Your task to perform on an android device: Search for razer blade on walmart, select the first entry, add it to the cart, then select checkout. Image 0: 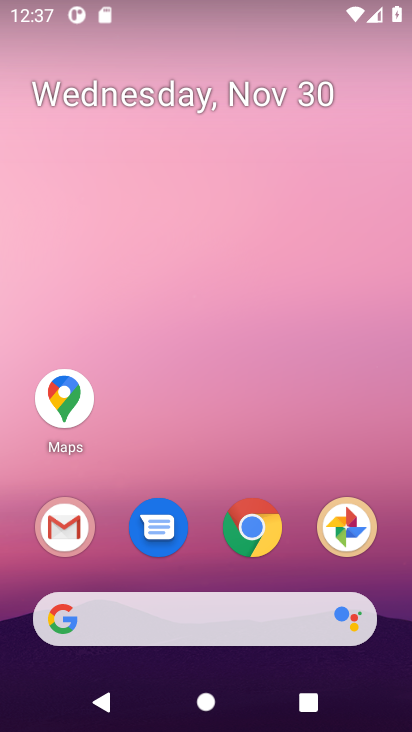
Step 0: click (232, 635)
Your task to perform on an android device: Search for razer blade on walmart, select the first entry, add it to the cart, then select checkout. Image 1: 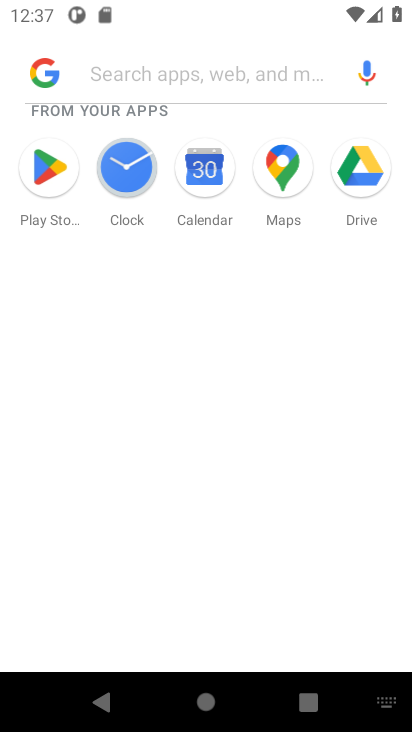
Step 1: press home button
Your task to perform on an android device: Search for razer blade on walmart, select the first entry, add it to the cart, then select checkout. Image 2: 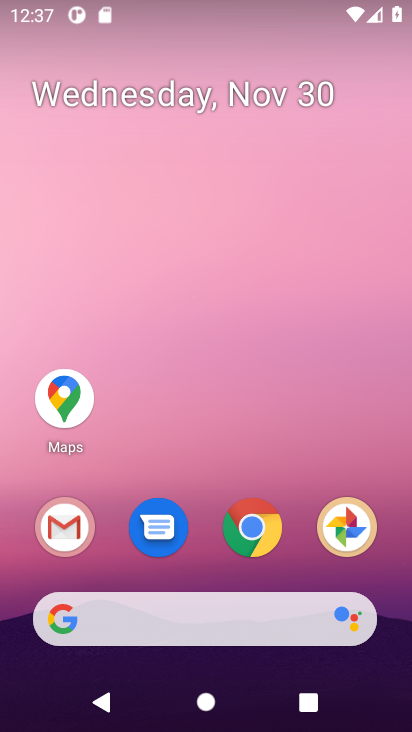
Step 2: click (253, 546)
Your task to perform on an android device: Search for razer blade on walmart, select the first entry, add it to the cart, then select checkout. Image 3: 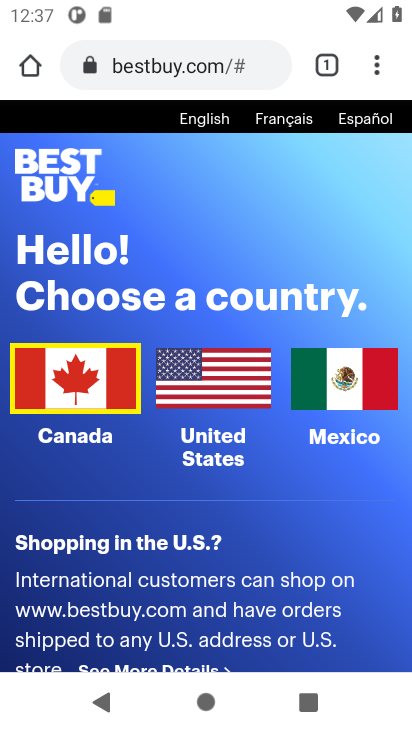
Step 3: click (169, 78)
Your task to perform on an android device: Search for razer blade on walmart, select the first entry, add it to the cart, then select checkout. Image 4: 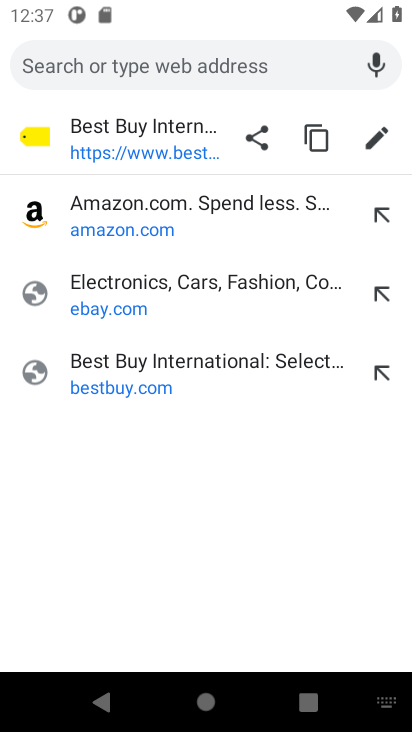
Step 4: type "walmart"
Your task to perform on an android device: Search for razer blade on walmart, select the first entry, add it to the cart, then select checkout. Image 5: 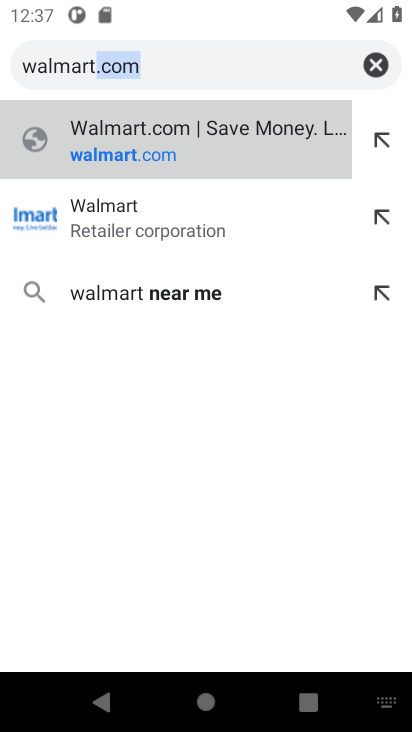
Step 5: click (102, 126)
Your task to perform on an android device: Search for razer blade on walmart, select the first entry, add it to the cart, then select checkout. Image 6: 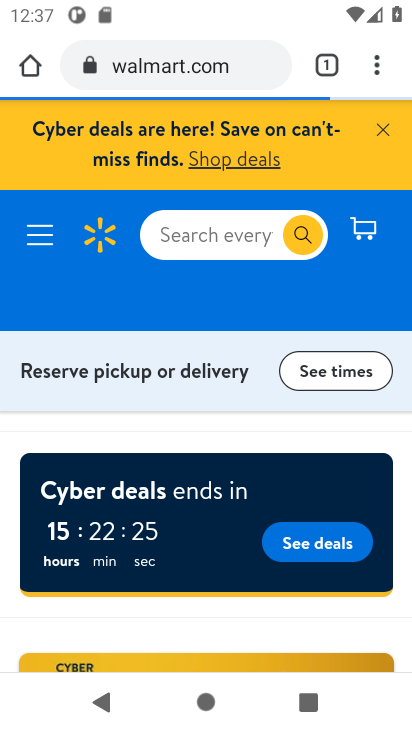
Step 6: click (180, 230)
Your task to perform on an android device: Search for razer blade on walmart, select the first entry, add it to the cart, then select checkout. Image 7: 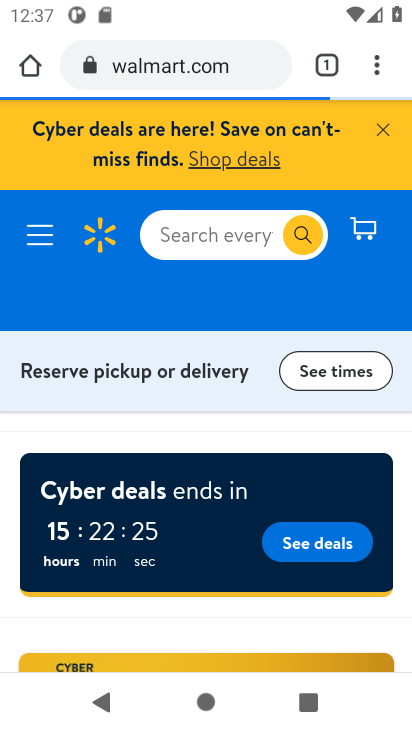
Step 7: click (206, 245)
Your task to perform on an android device: Search for razer blade on walmart, select the first entry, add it to the cart, then select checkout. Image 8: 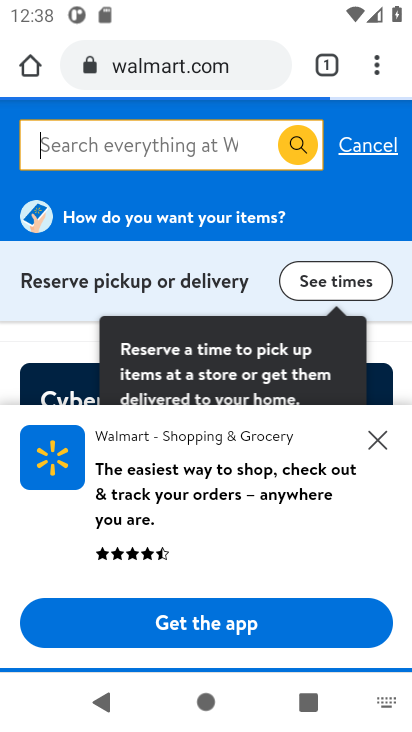
Step 8: click (379, 455)
Your task to perform on an android device: Search for razer blade on walmart, select the first entry, add it to the cart, then select checkout. Image 9: 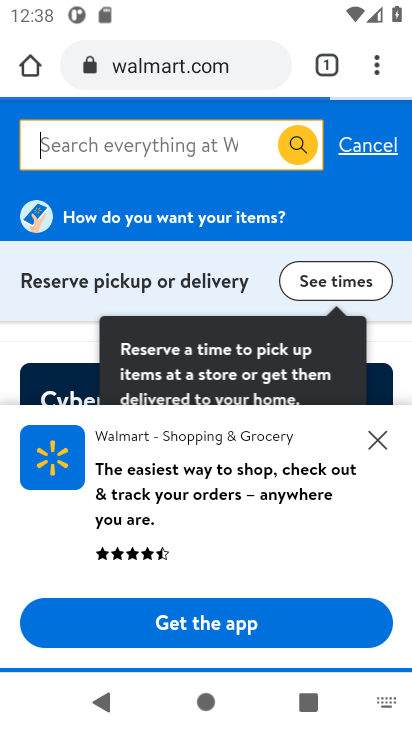
Step 9: click (366, 443)
Your task to perform on an android device: Search for razer blade on walmart, select the first entry, add it to the cart, then select checkout. Image 10: 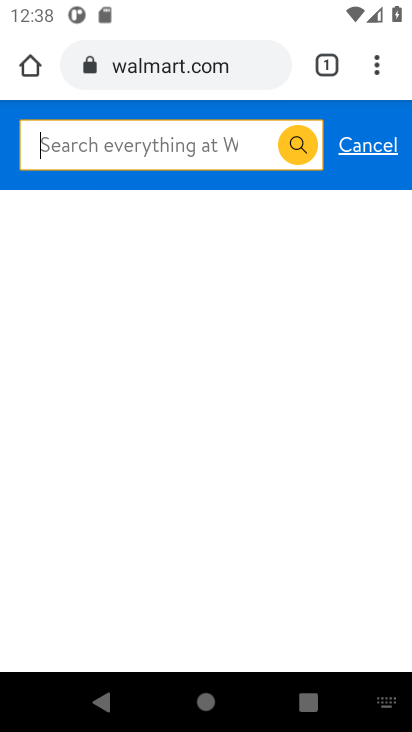
Step 10: type "razer blade"
Your task to perform on an android device: Search for razer blade on walmart, select the first entry, add it to the cart, then select checkout. Image 11: 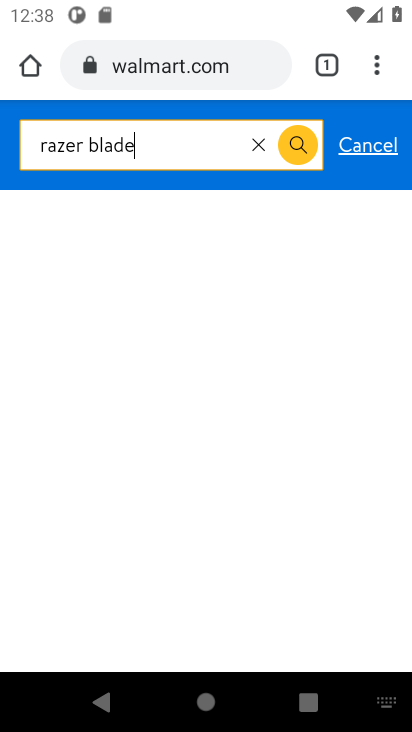
Step 11: click (302, 146)
Your task to perform on an android device: Search for razer blade on walmart, select the first entry, add it to the cart, then select checkout. Image 12: 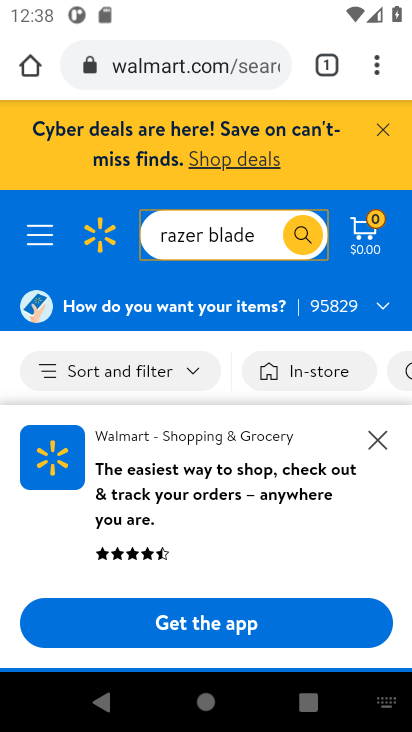
Step 12: click (372, 443)
Your task to perform on an android device: Search for razer blade on walmart, select the first entry, add it to the cart, then select checkout. Image 13: 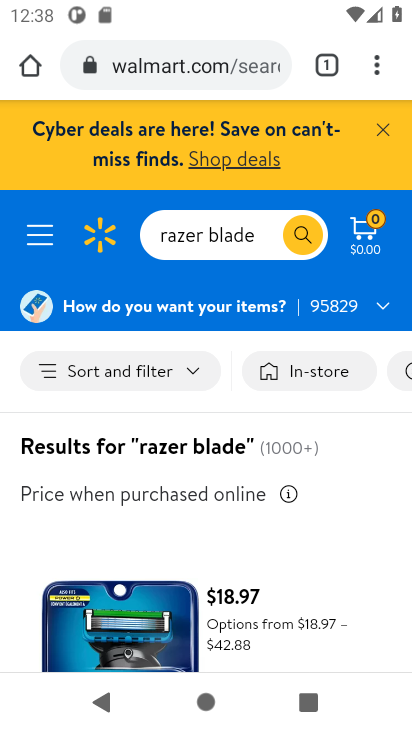
Step 13: drag from (307, 550) to (307, 516)
Your task to perform on an android device: Search for razer blade on walmart, select the first entry, add it to the cart, then select checkout. Image 14: 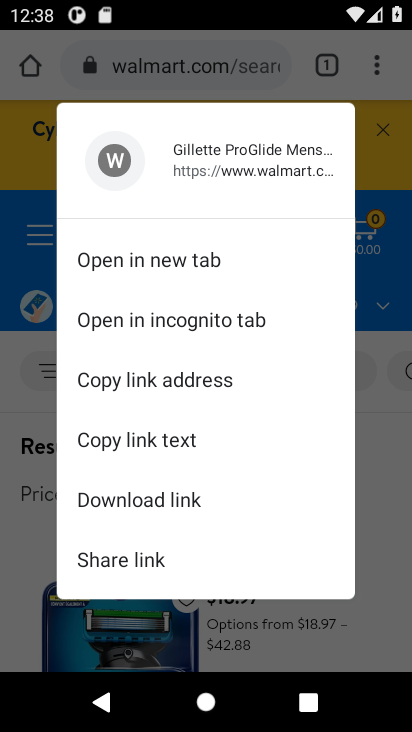
Step 14: click (400, 544)
Your task to perform on an android device: Search for razer blade on walmart, select the first entry, add it to the cart, then select checkout. Image 15: 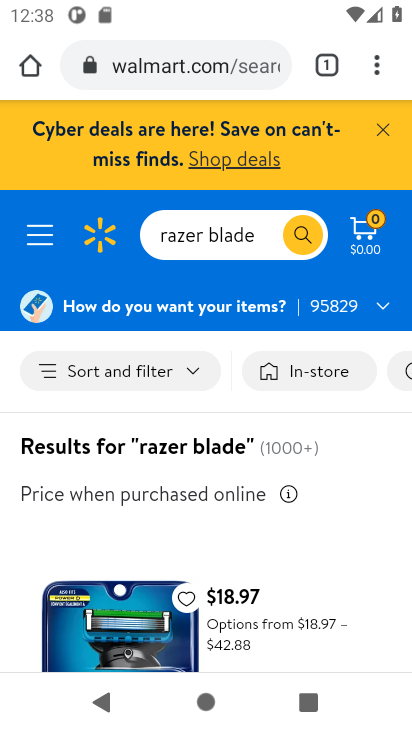
Step 15: drag from (317, 558) to (288, 410)
Your task to perform on an android device: Search for razer blade on walmart, select the first entry, add it to the cart, then select checkout. Image 16: 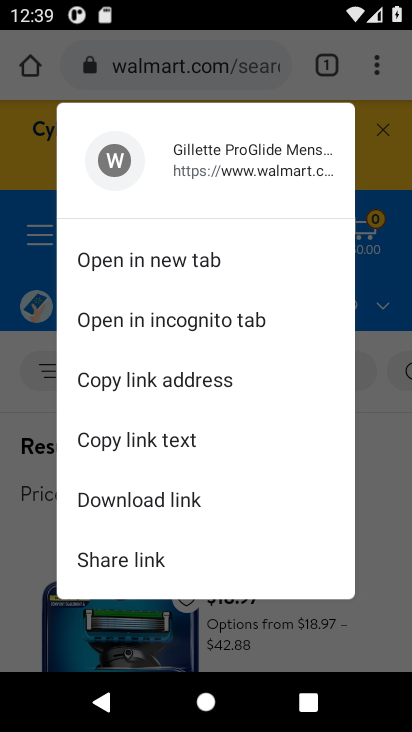
Step 16: click (336, 620)
Your task to perform on an android device: Search for razer blade on walmart, select the first entry, add it to the cart, then select checkout. Image 17: 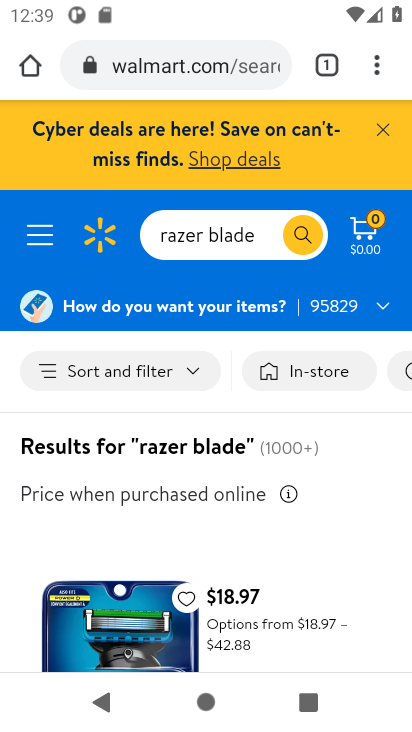
Step 17: task complete